Your task to perform on an android device: change timer sound Image 0: 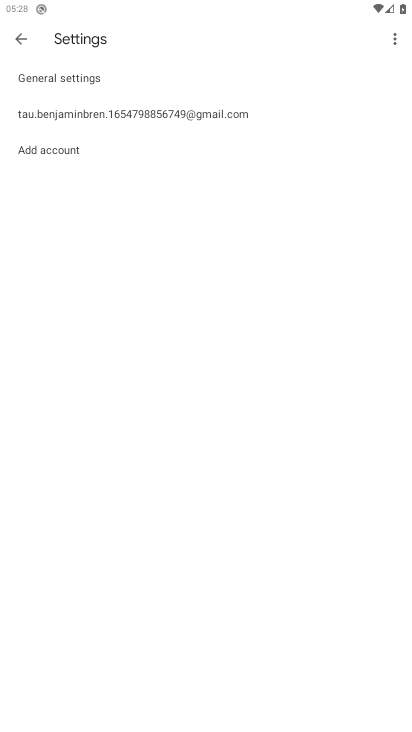
Step 0: press home button
Your task to perform on an android device: change timer sound Image 1: 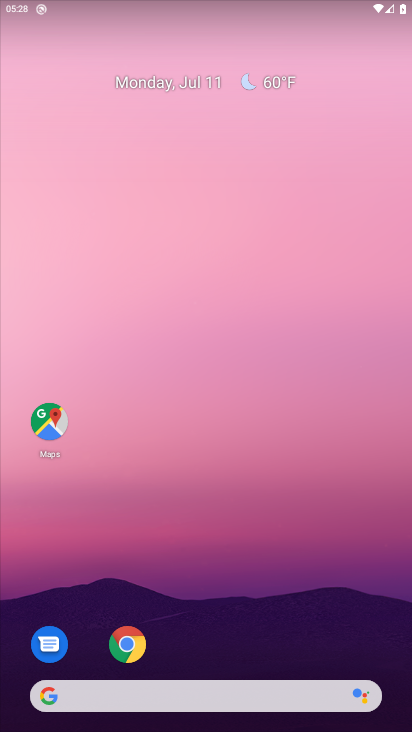
Step 1: drag from (193, 678) to (258, 266)
Your task to perform on an android device: change timer sound Image 2: 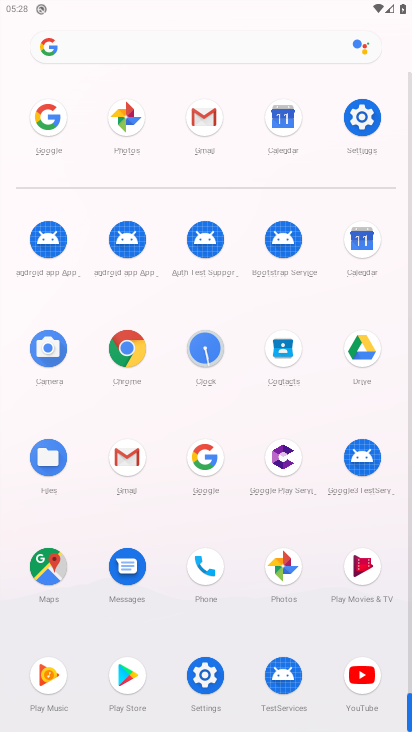
Step 2: click (197, 363)
Your task to perform on an android device: change timer sound Image 3: 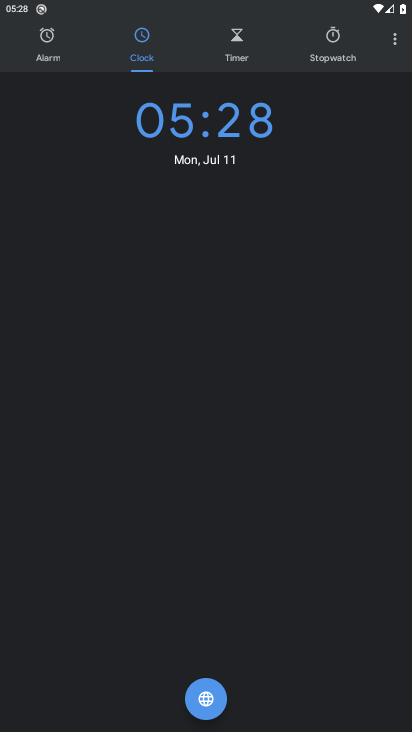
Step 3: click (395, 45)
Your task to perform on an android device: change timer sound Image 4: 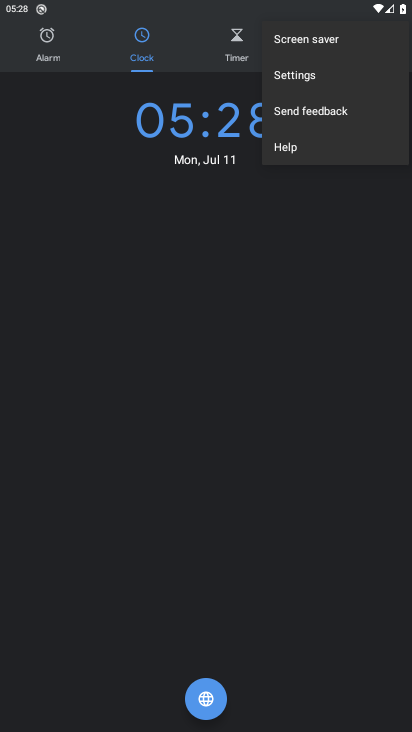
Step 4: click (279, 79)
Your task to perform on an android device: change timer sound Image 5: 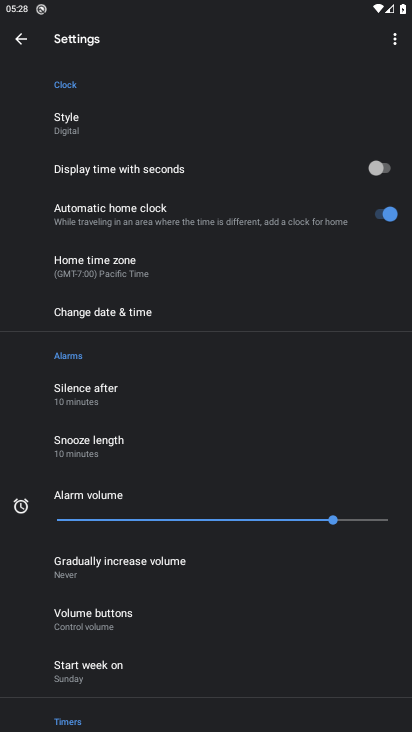
Step 5: drag from (135, 660) to (134, 314)
Your task to perform on an android device: change timer sound Image 6: 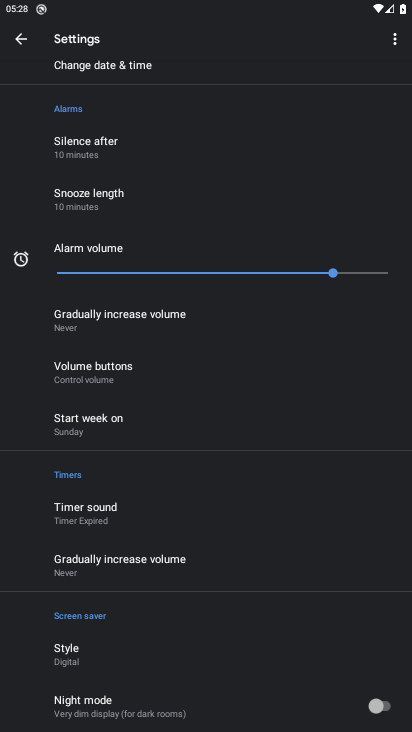
Step 6: click (102, 516)
Your task to perform on an android device: change timer sound Image 7: 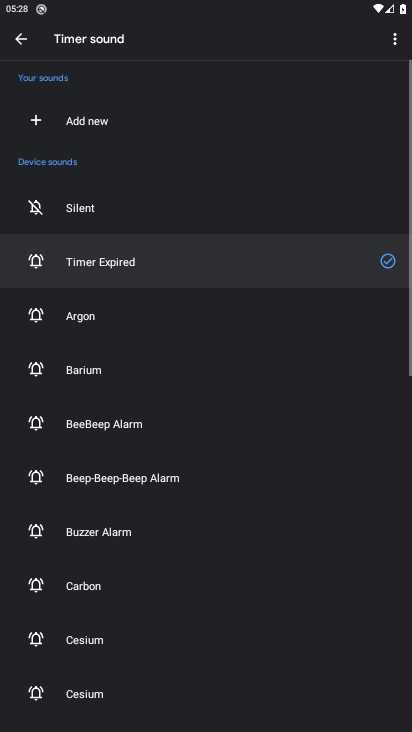
Step 7: click (97, 377)
Your task to perform on an android device: change timer sound Image 8: 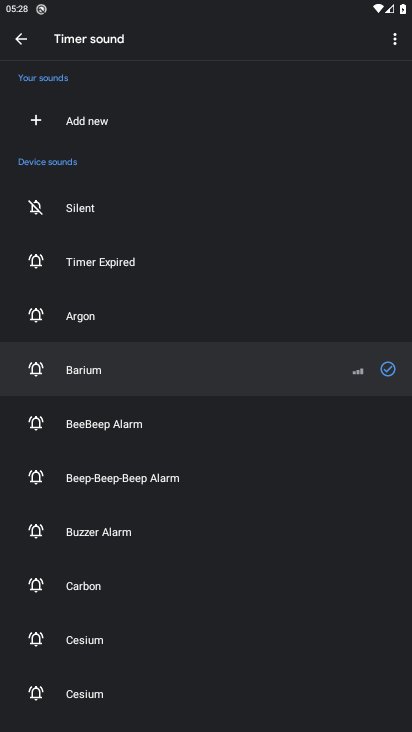
Step 8: task complete